Your task to perform on an android device: View the shopping cart on target. Add usb-a to the cart on target, then select checkout. Image 0: 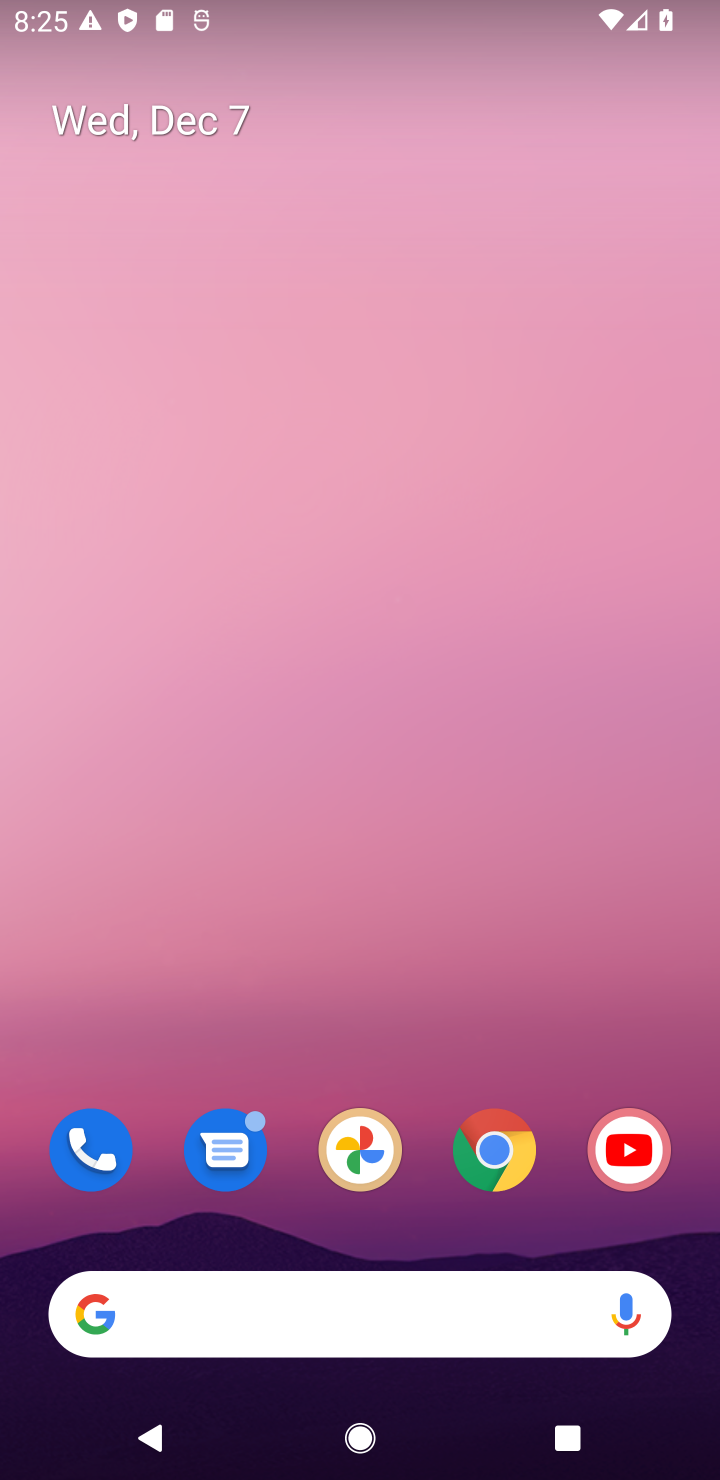
Step 0: task complete